Your task to perform on an android device: Go to location settings Image 0: 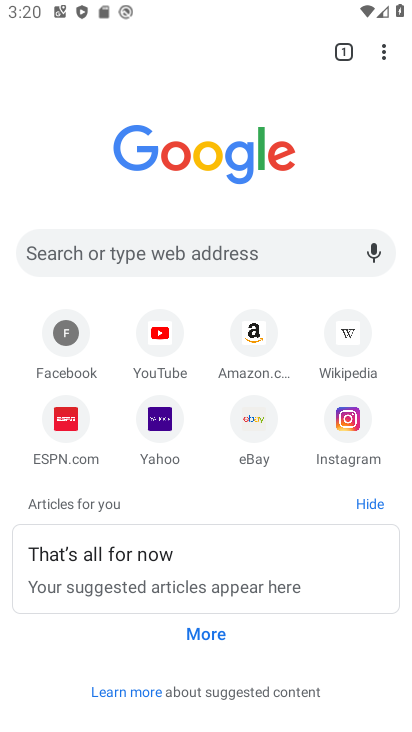
Step 0: press home button
Your task to perform on an android device: Go to location settings Image 1: 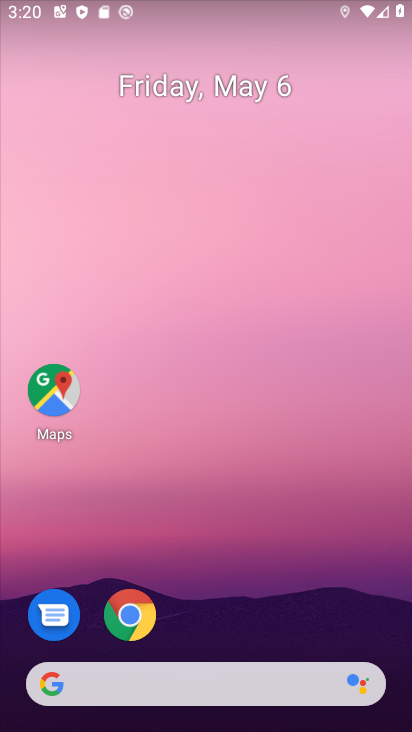
Step 1: drag from (278, 593) to (337, 141)
Your task to perform on an android device: Go to location settings Image 2: 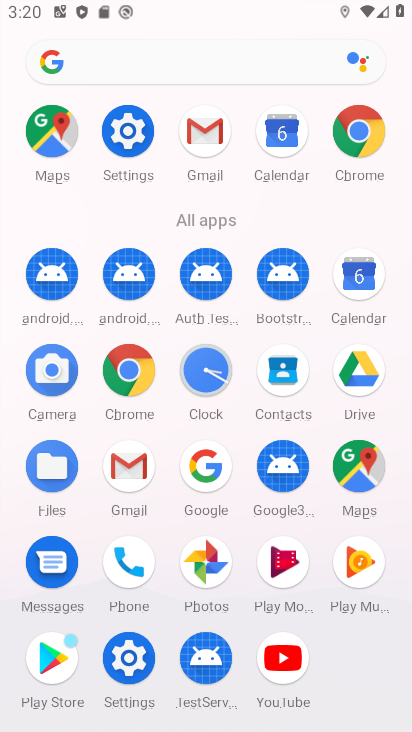
Step 2: click (124, 132)
Your task to perform on an android device: Go to location settings Image 3: 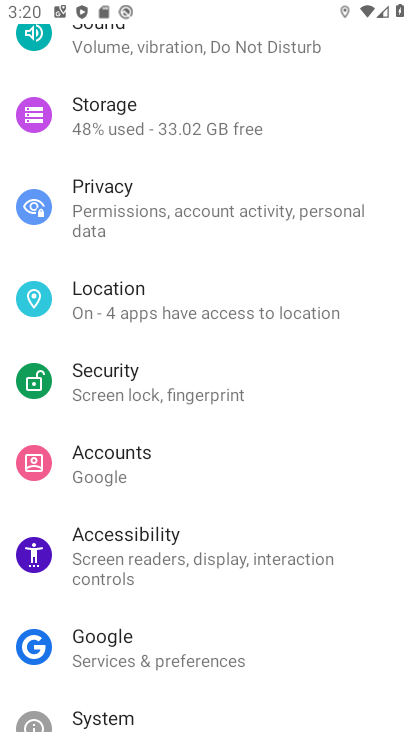
Step 3: click (96, 293)
Your task to perform on an android device: Go to location settings Image 4: 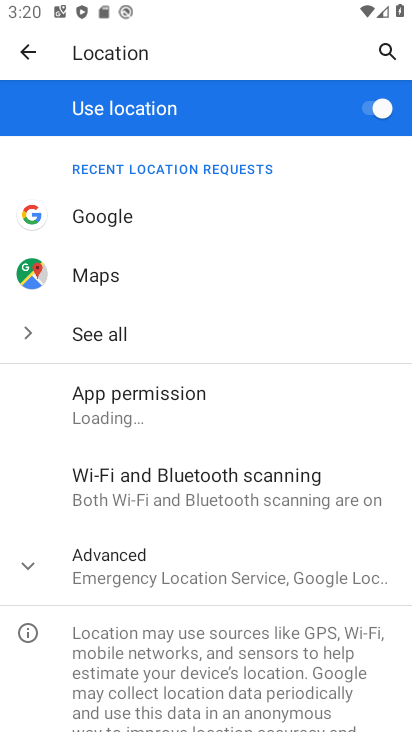
Step 4: task complete